Your task to perform on an android device: View the shopping cart on newegg. Search for "energizer triple a" on newegg, select the first entry, and add it to the cart. Image 0: 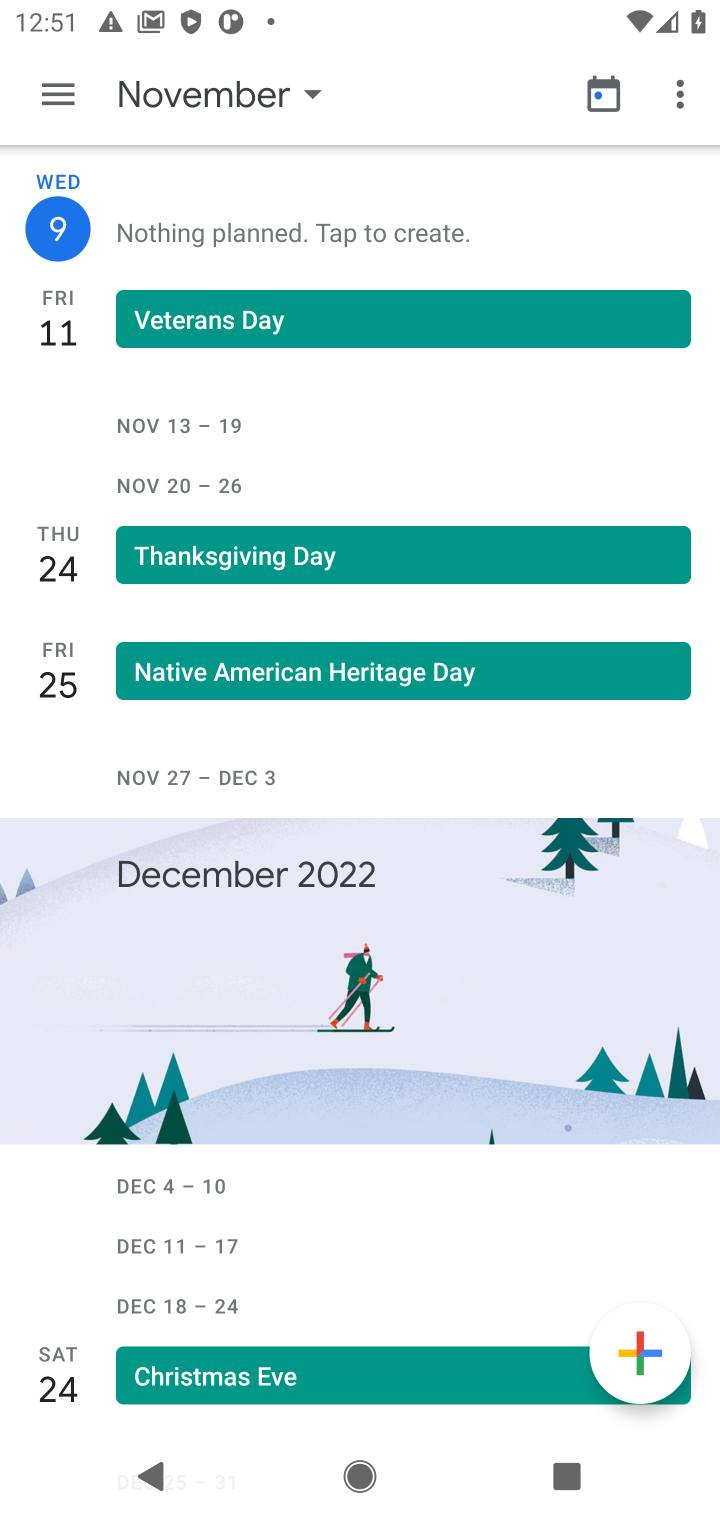
Step 0: press home button
Your task to perform on an android device: View the shopping cart on newegg. Search for "energizer triple a" on newegg, select the first entry, and add it to the cart. Image 1: 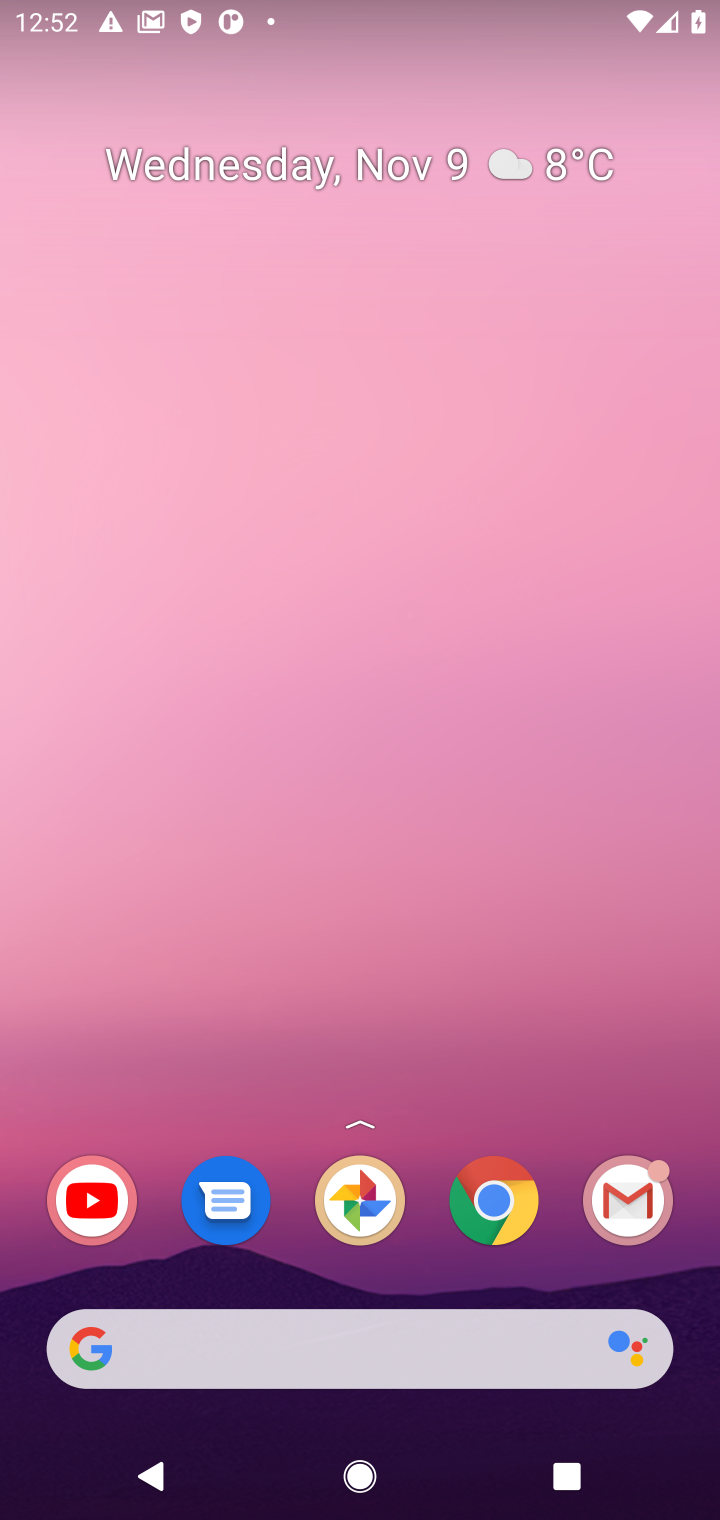
Step 1: click (363, 1361)
Your task to perform on an android device: View the shopping cart on newegg. Search for "energizer triple a" on newegg, select the first entry, and add it to the cart. Image 2: 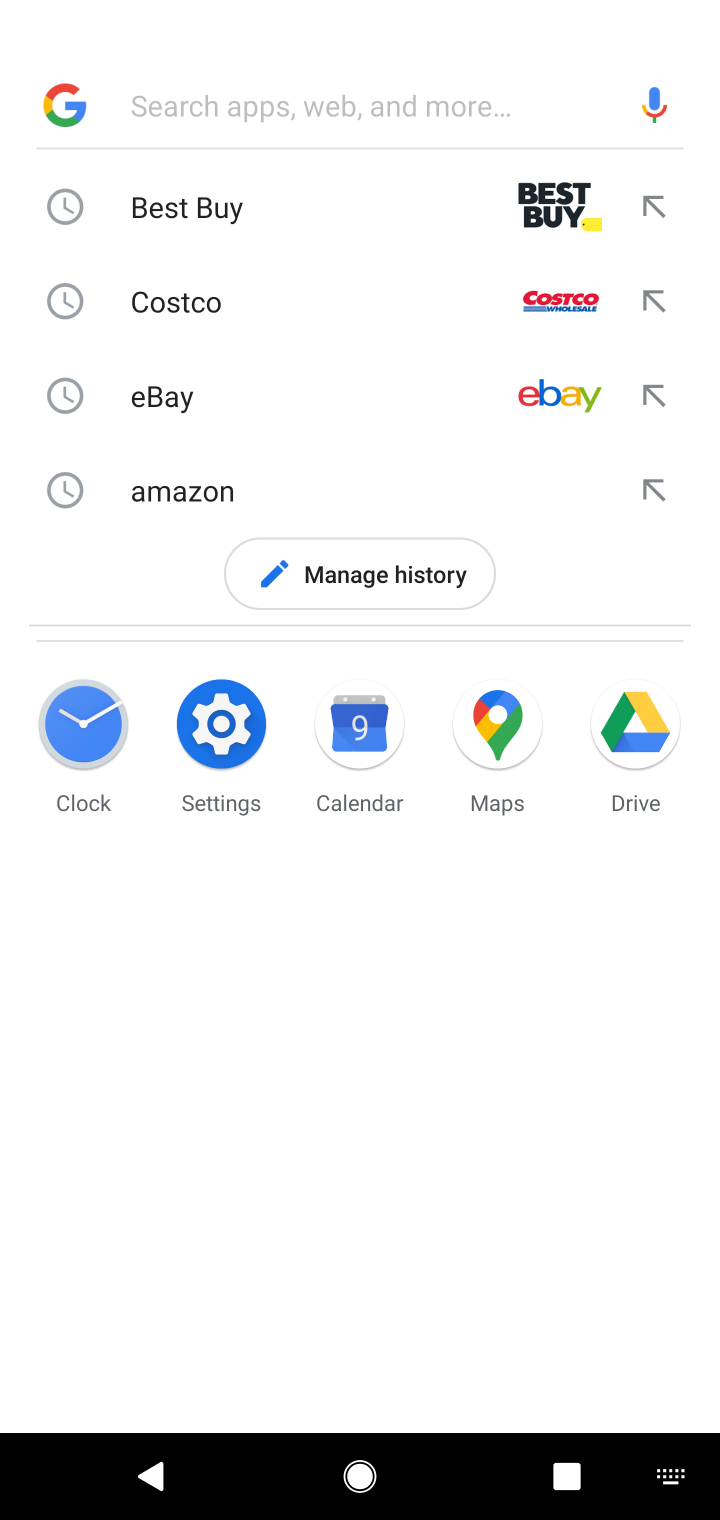
Step 2: type "newgg"
Your task to perform on an android device: View the shopping cart on newegg. Search for "energizer triple a" on newegg, select the first entry, and add it to the cart. Image 3: 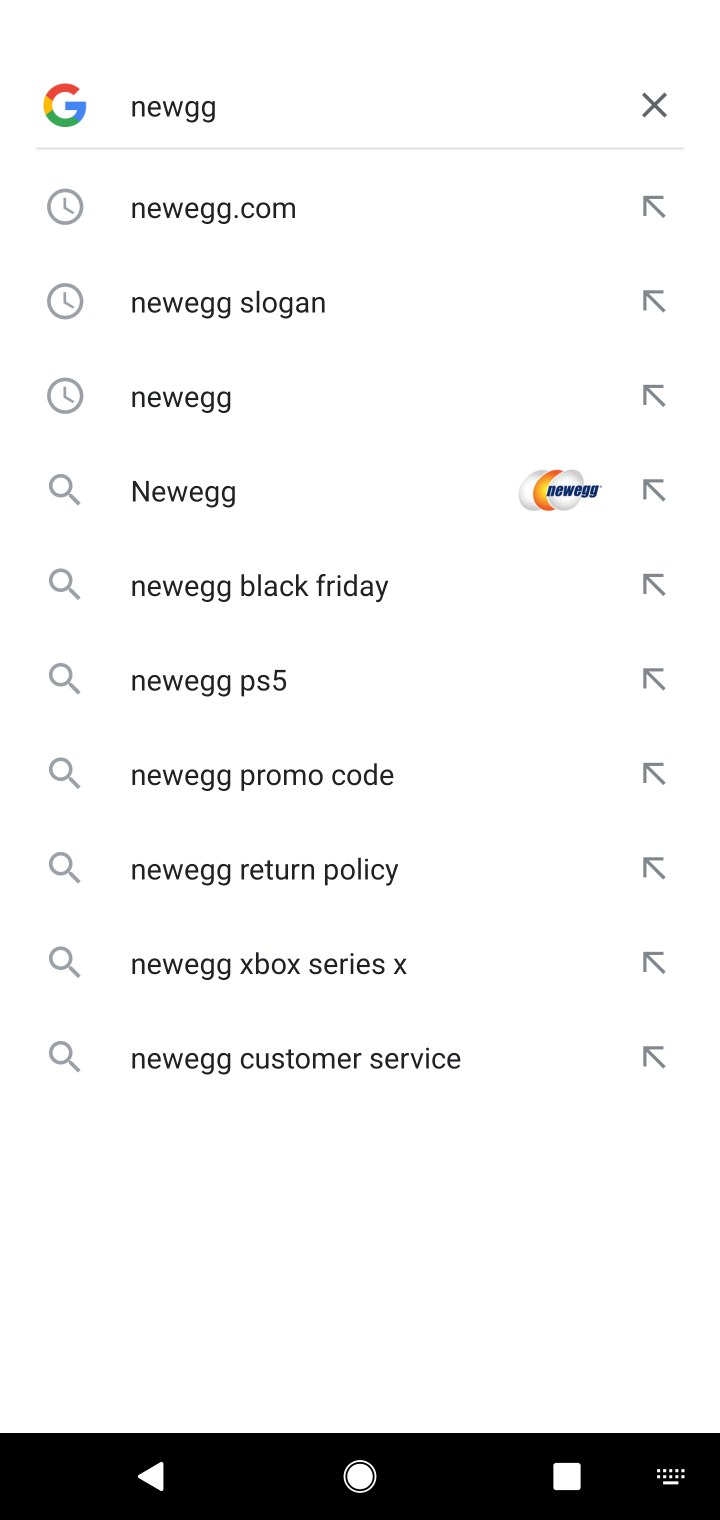
Step 3: click (370, 177)
Your task to perform on an android device: View the shopping cart on newegg. Search for "energizer triple a" on newegg, select the first entry, and add it to the cart. Image 4: 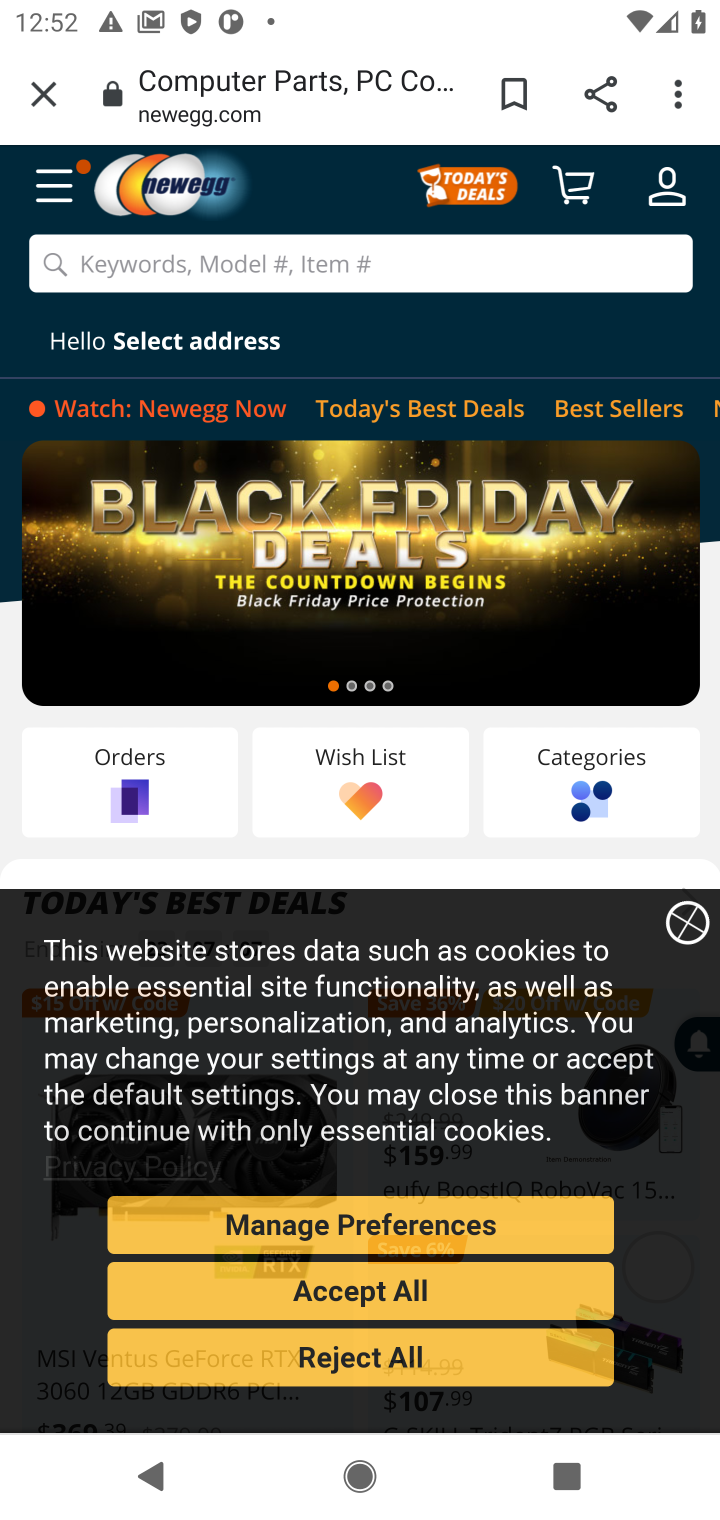
Step 4: task complete